Your task to perform on an android device: Search for apple airpods on walmart.com, select the first entry, and add it to the cart. Image 0: 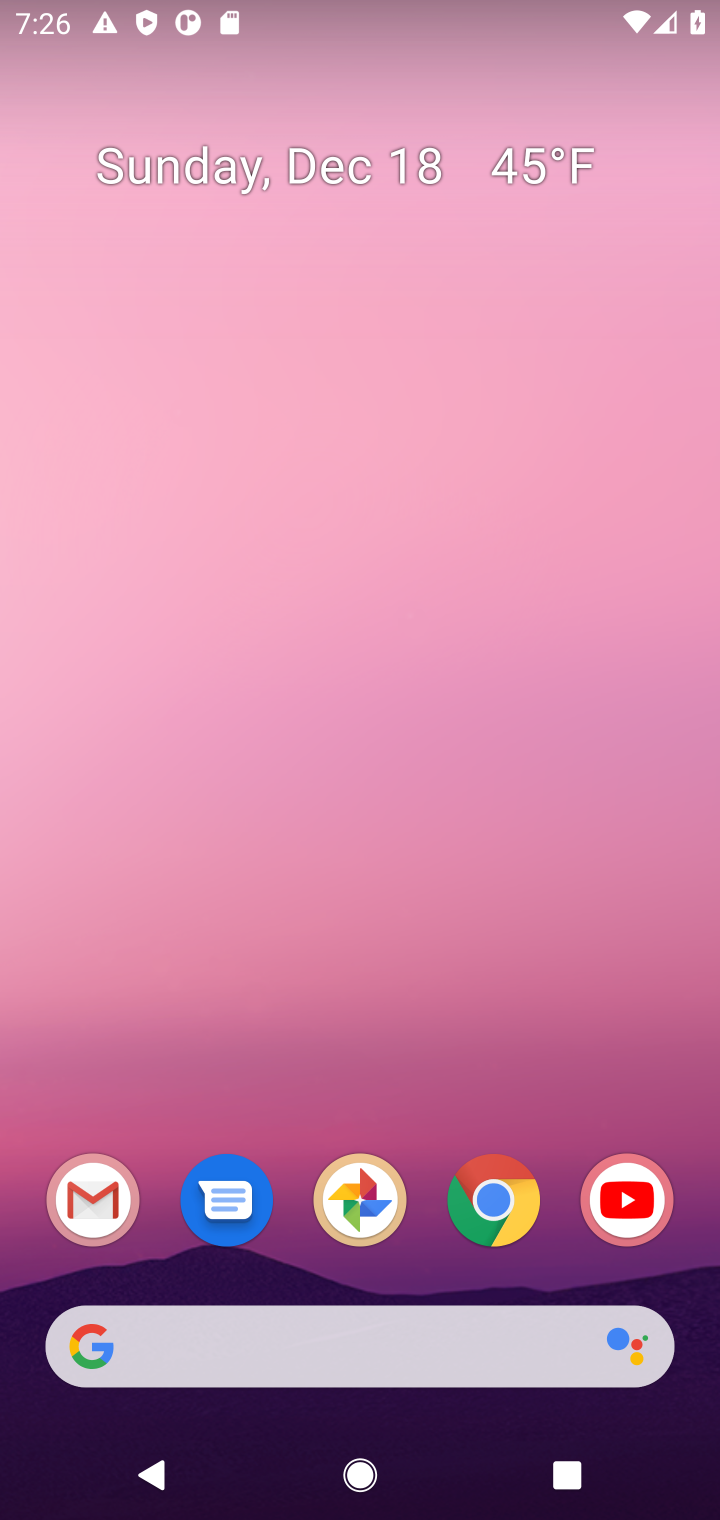
Step 0: click (493, 1191)
Your task to perform on an android device: Search for apple airpods on walmart.com, select the first entry, and add it to the cart. Image 1: 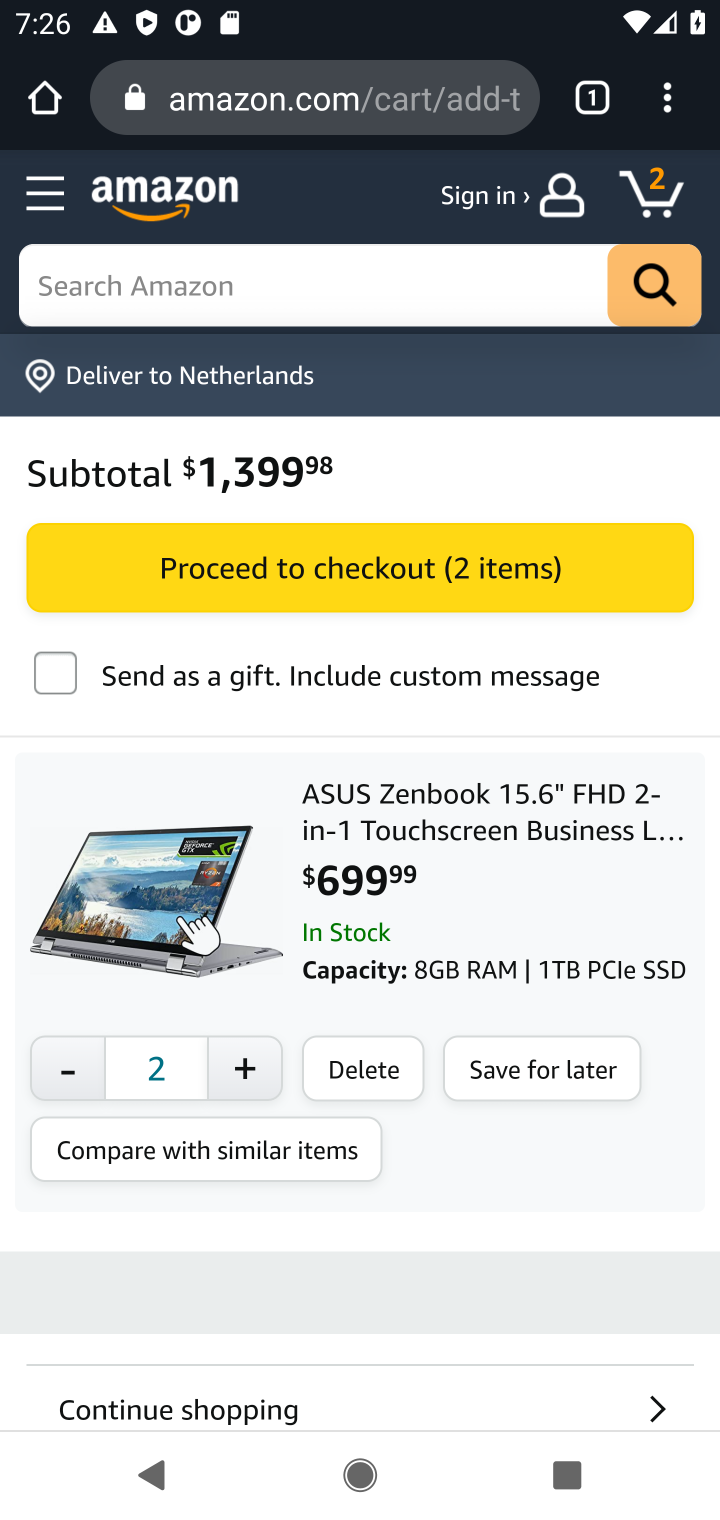
Step 1: click (237, 103)
Your task to perform on an android device: Search for apple airpods on walmart.com, select the first entry, and add it to the cart. Image 2: 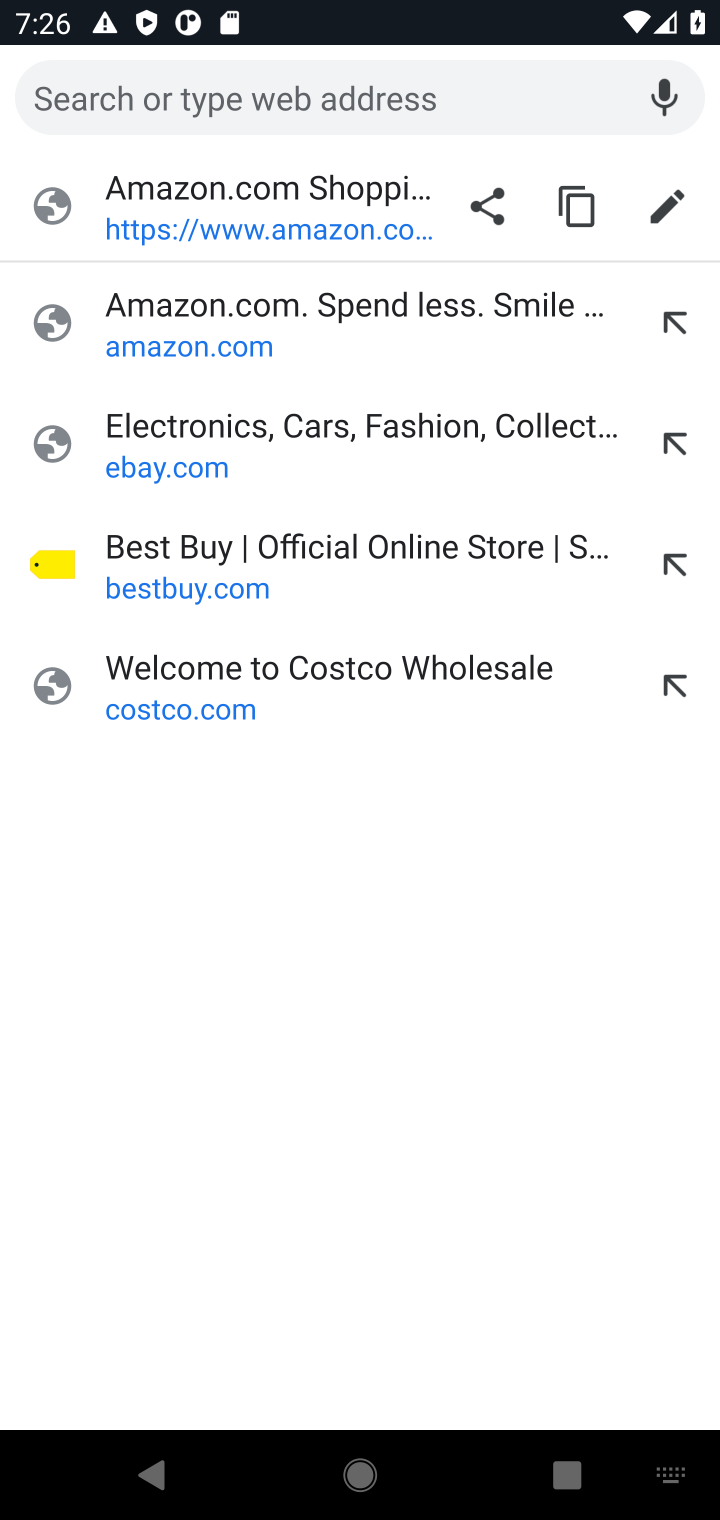
Step 2: click (237, 103)
Your task to perform on an android device: Search for apple airpods on walmart.com, select the first entry, and add it to the cart. Image 3: 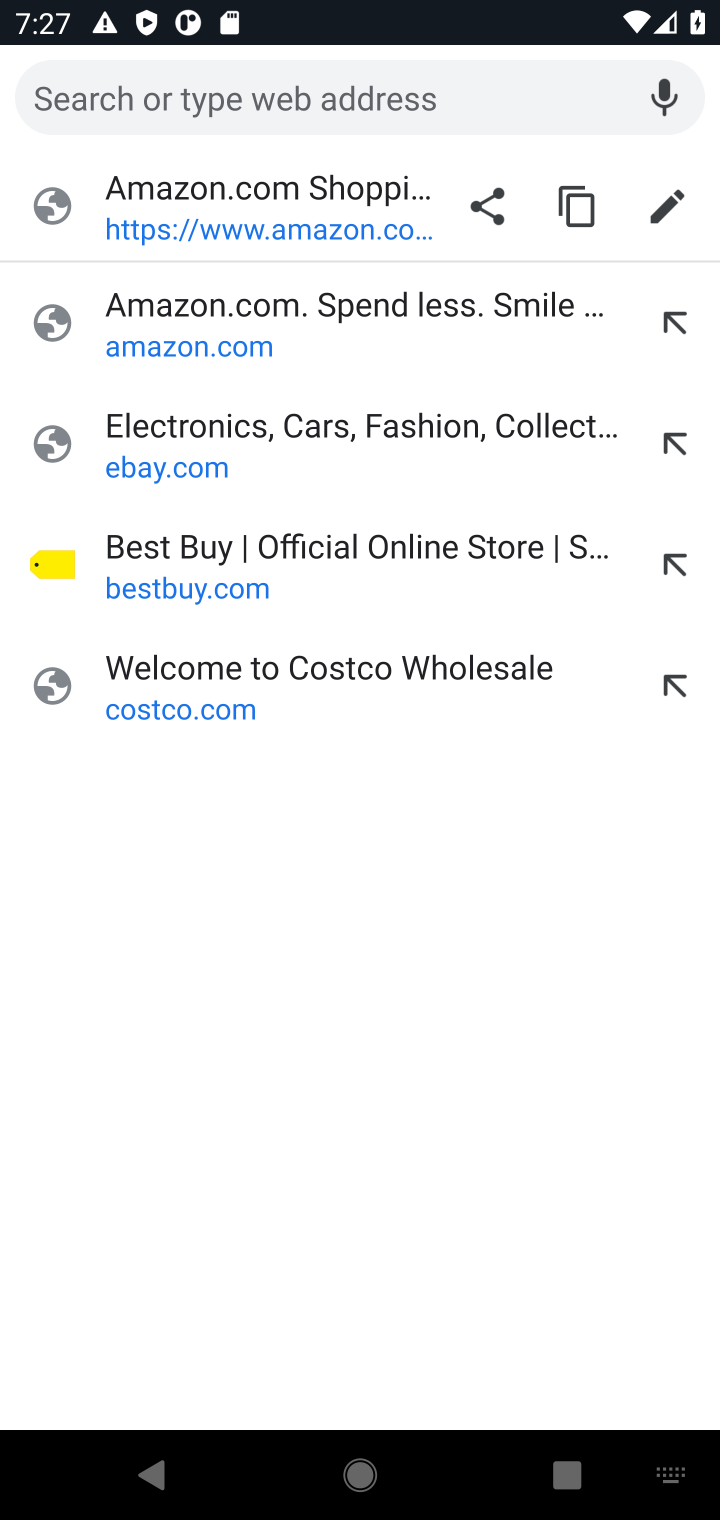
Step 3: type "walmart.com"
Your task to perform on an android device: Search for apple airpods on walmart.com, select the first entry, and add it to the cart. Image 4: 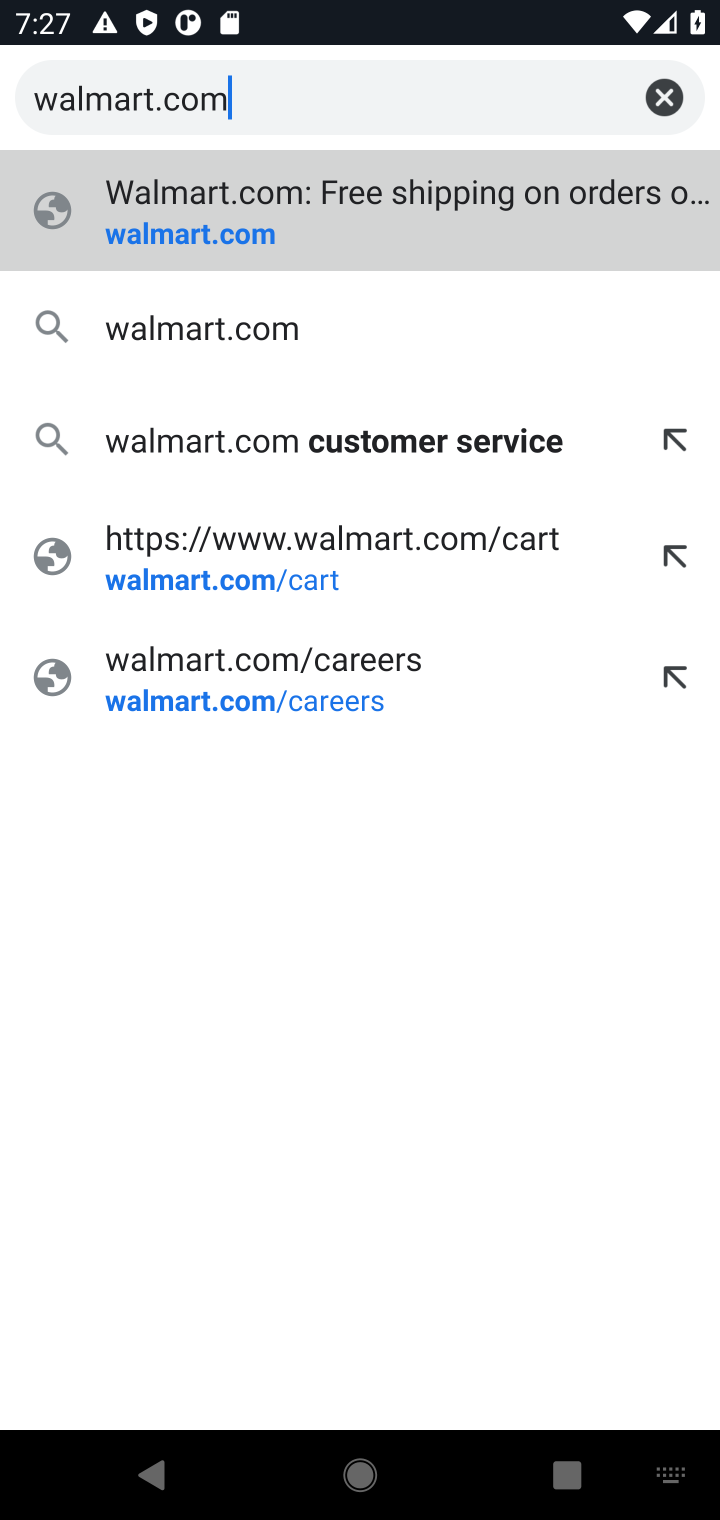
Step 4: click (141, 225)
Your task to perform on an android device: Search for apple airpods on walmart.com, select the first entry, and add it to the cart. Image 5: 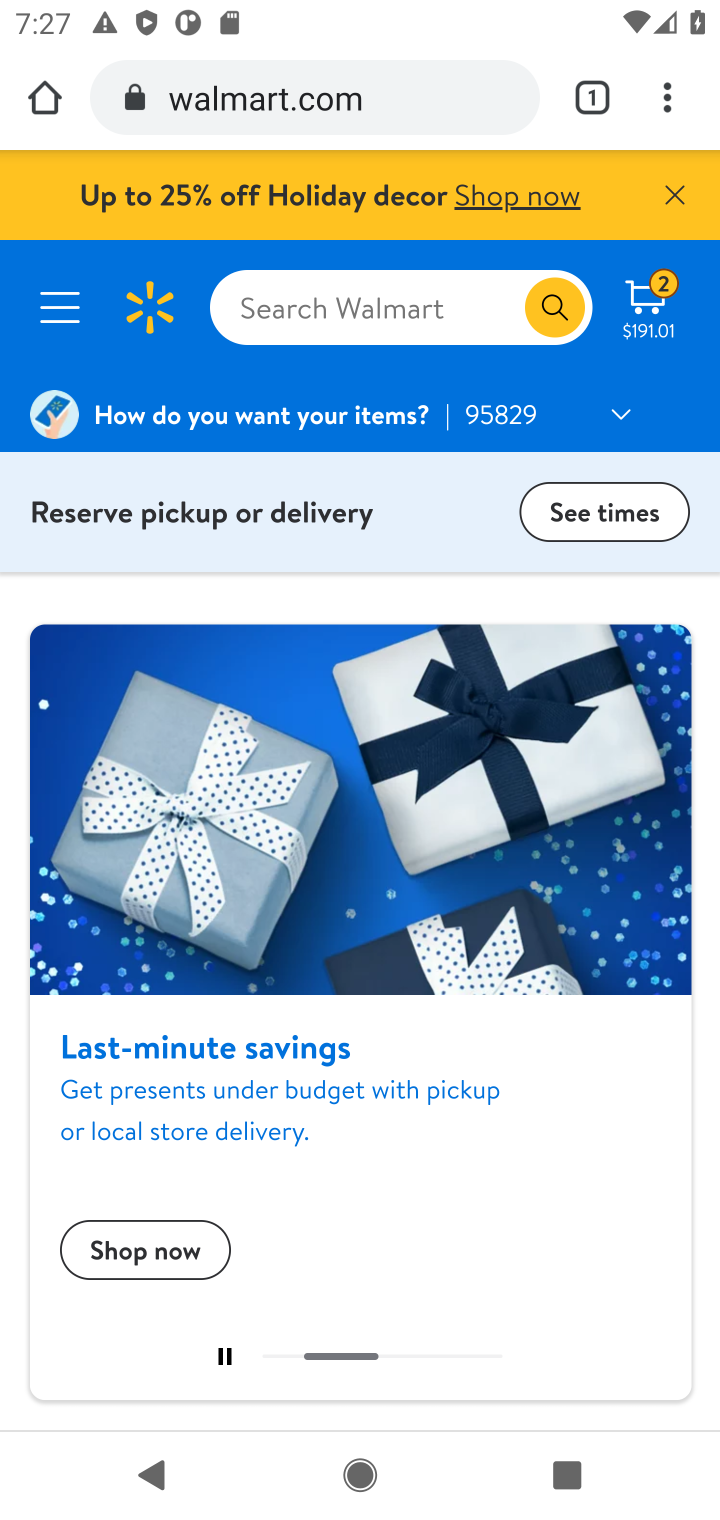
Step 5: click (291, 309)
Your task to perform on an android device: Search for apple airpods on walmart.com, select the first entry, and add it to the cart. Image 6: 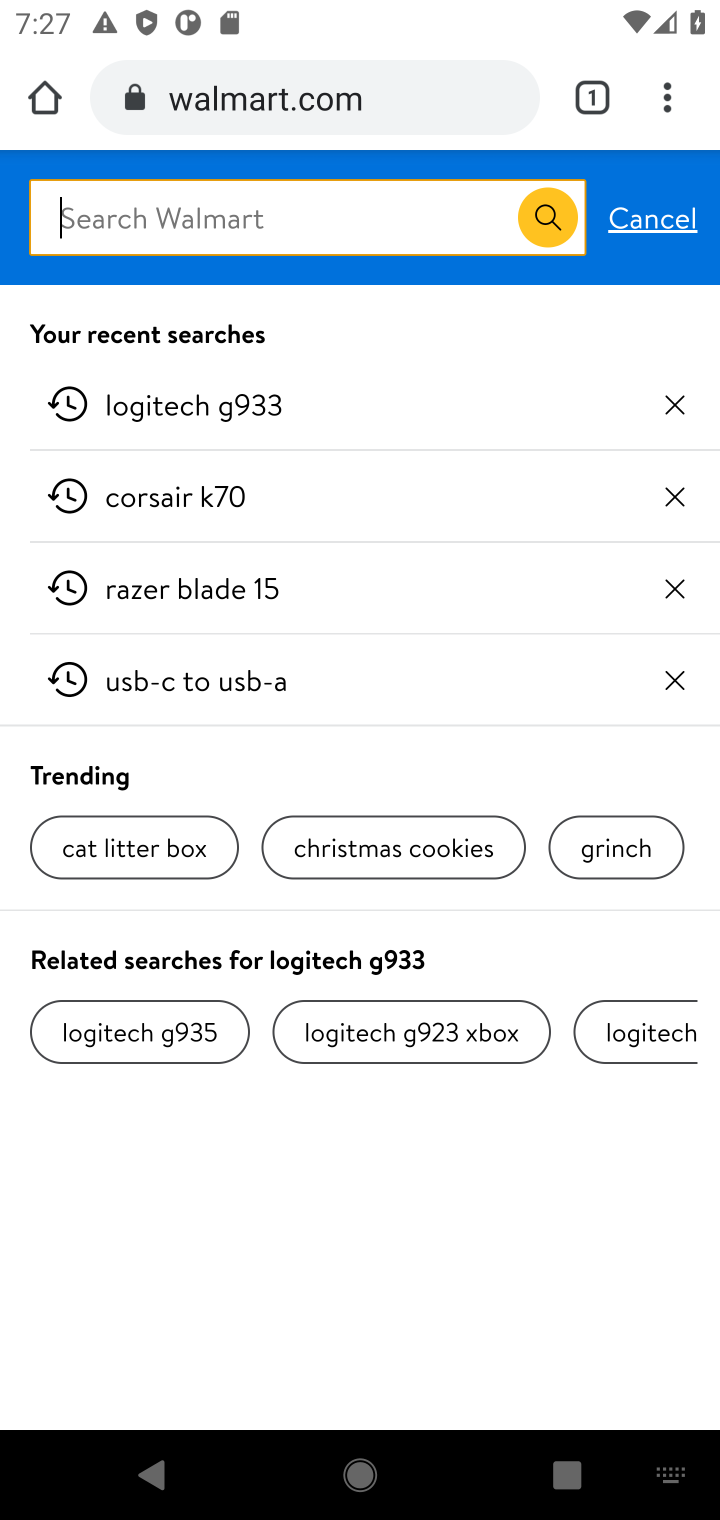
Step 6: type "apple airpods"
Your task to perform on an android device: Search for apple airpods on walmart.com, select the first entry, and add it to the cart. Image 7: 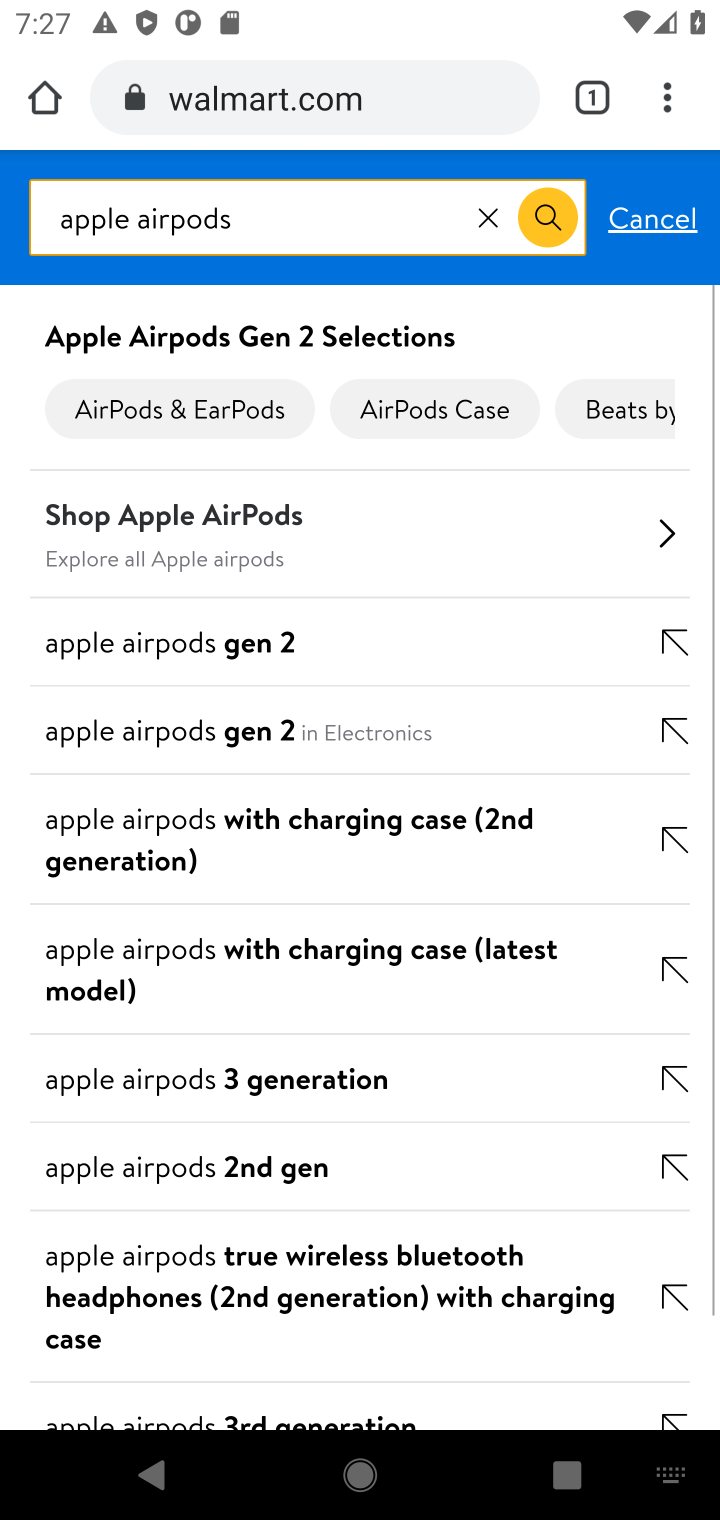
Step 7: click (547, 223)
Your task to perform on an android device: Search for apple airpods on walmart.com, select the first entry, and add it to the cart. Image 8: 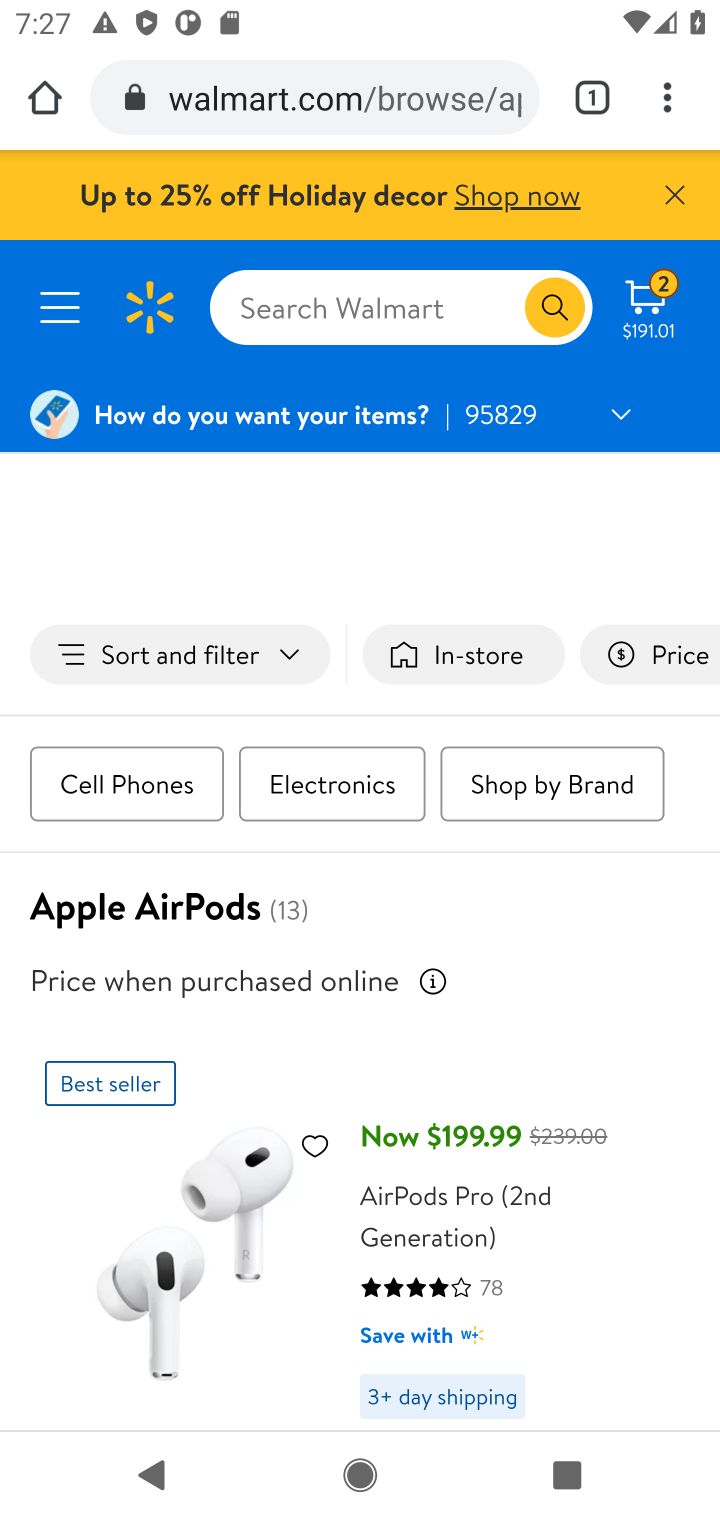
Step 8: drag from (409, 1062) to (415, 590)
Your task to perform on an android device: Search for apple airpods on walmart.com, select the first entry, and add it to the cart. Image 9: 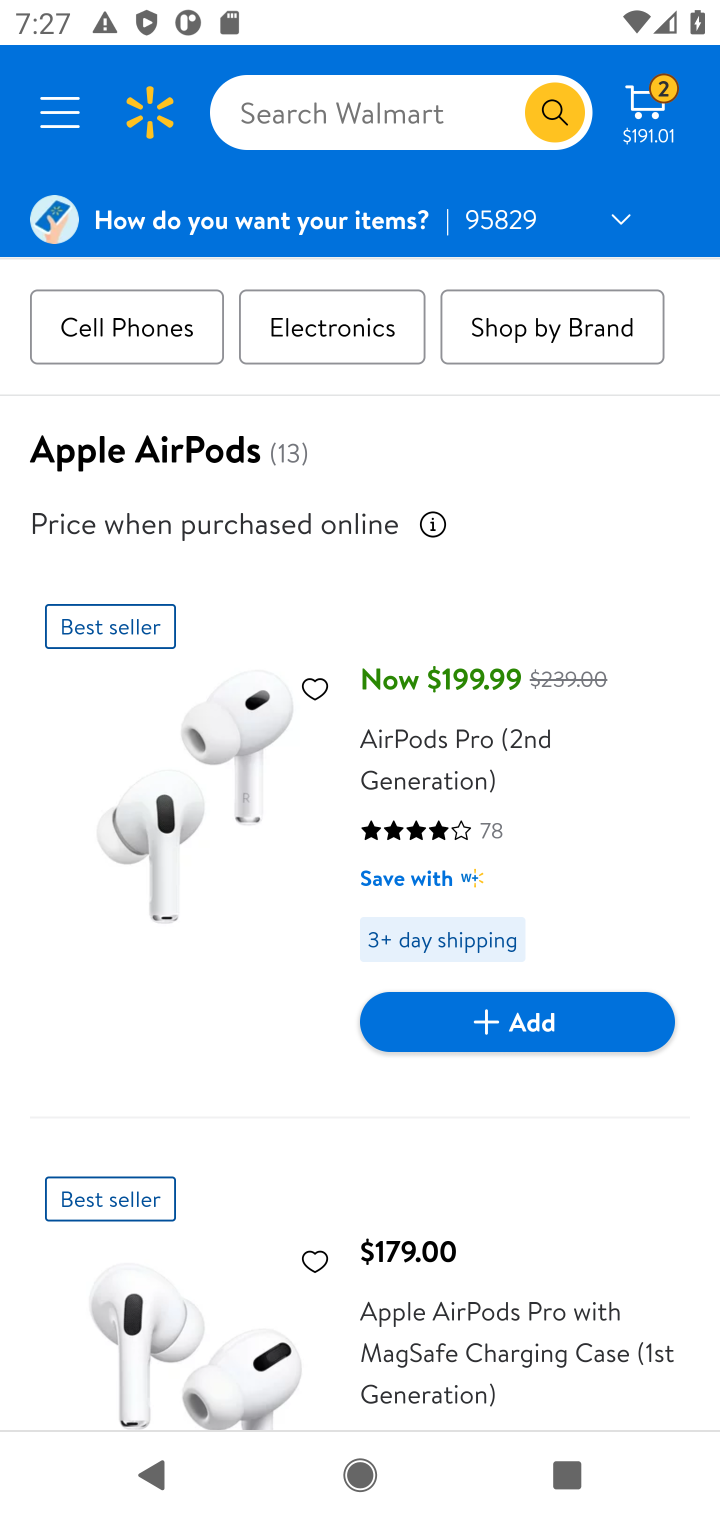
Step 9: click (495, 1030)
Your task to perform on an android device: Search for apple airpods on walmart.com, select the first entry, and add it to the cart. Image 10: 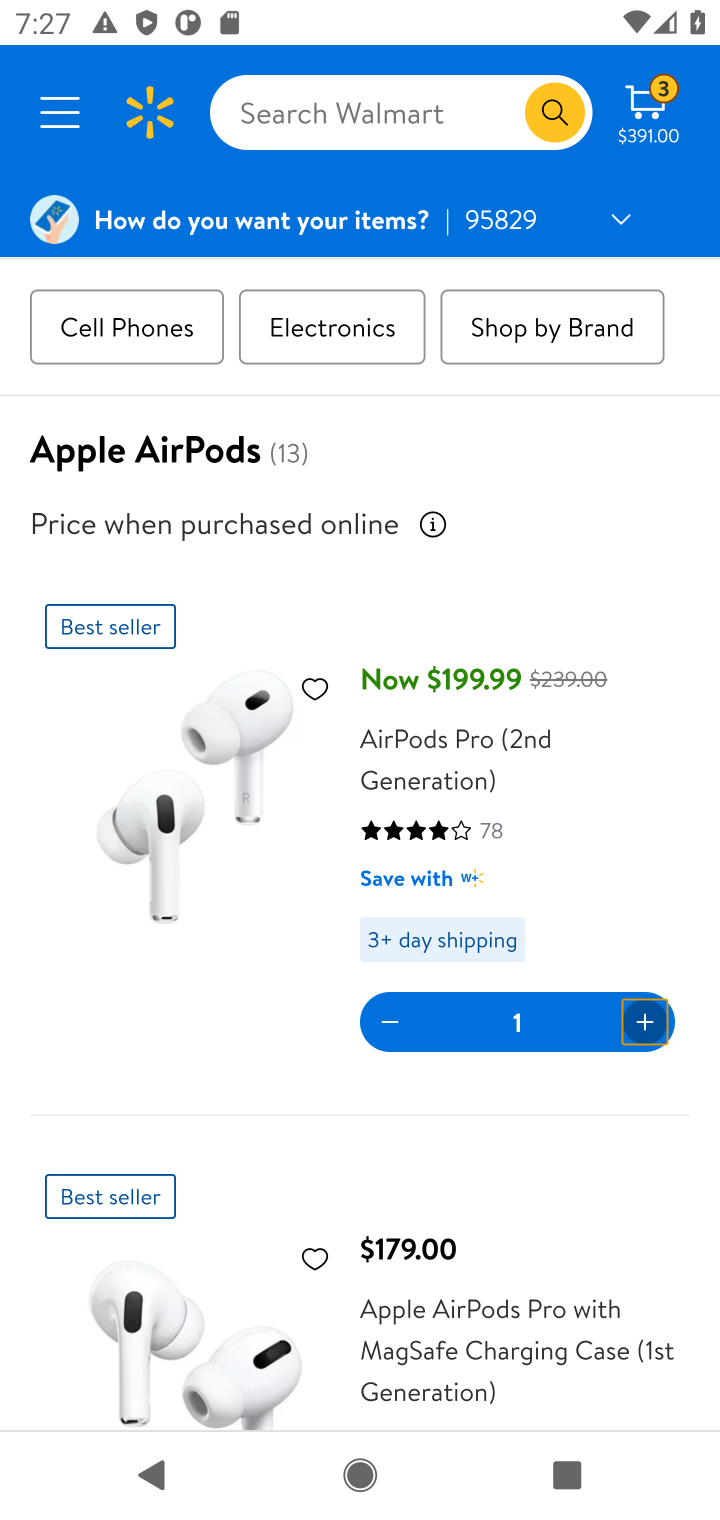
Step 10: task complete